Your task to perform on an android device: turn off airplane mode Image 0: 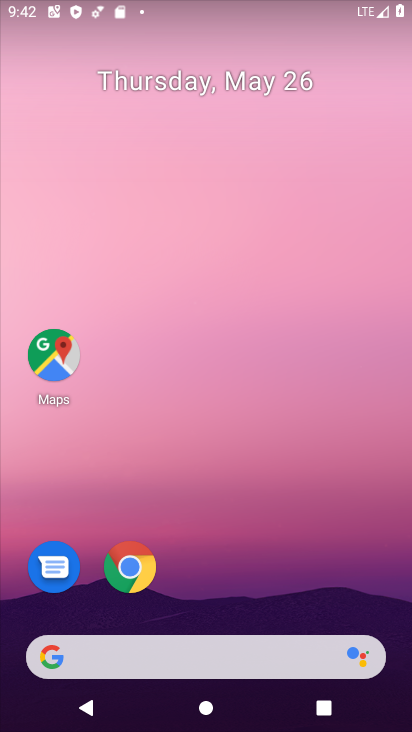
Step 0: drag from (228, 656) to (357, 17)
Your task to perform on an android device: turn off airplane mode Image 1: 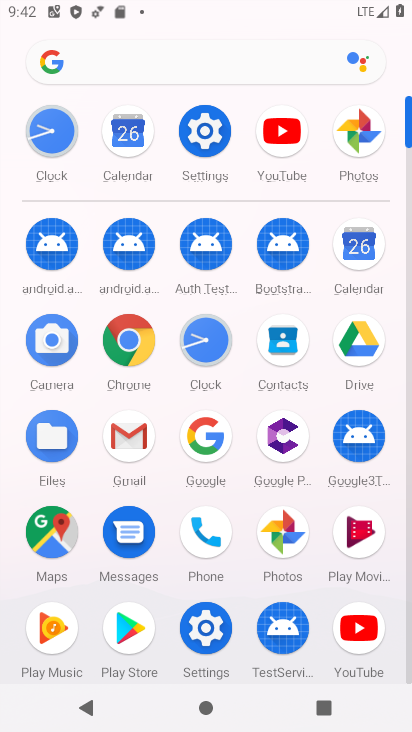
Step 1: click (217, 137)
Your task to perform on an android device: turn off airplane mode Image 2: 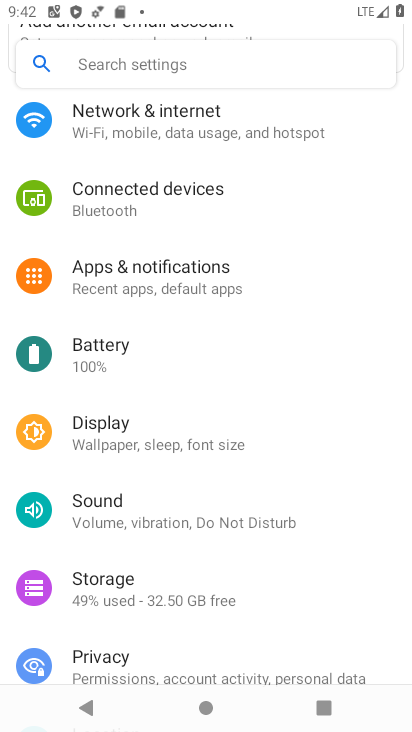
Step 2: click (258, 111)
Your task to perform on an android device: turn off airplane mode Image 3: 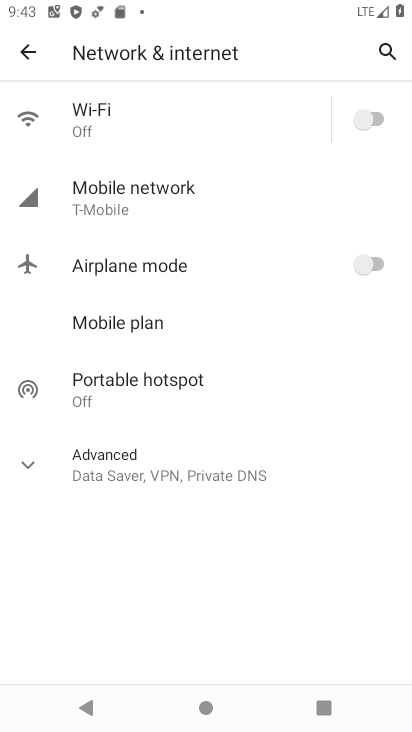
Step 3: task complete